Your task to perform on an android device: toggle wifi Image 0: 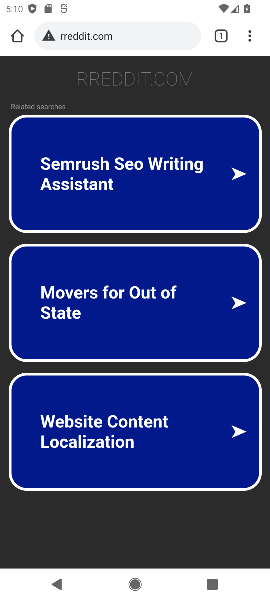
Step 0: press home button
Your task to perform on an android device: toggle wifi Image 1: 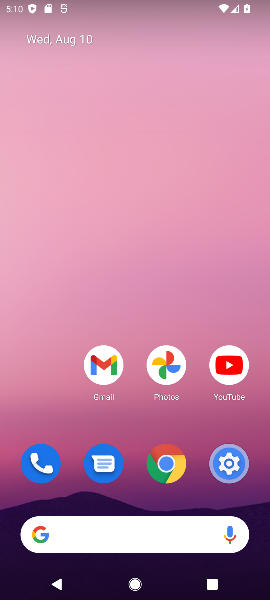
Step 1: click (230, 465)
Your task to perform on an android device: toggle wifi Image 2: 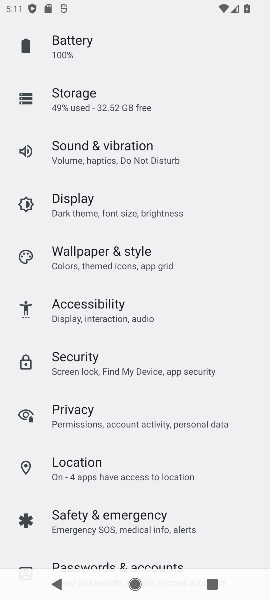
Step 2: drag from (149, 76) to (86, 380)
Your task to perform on an android device: toggle wifi Image 3: 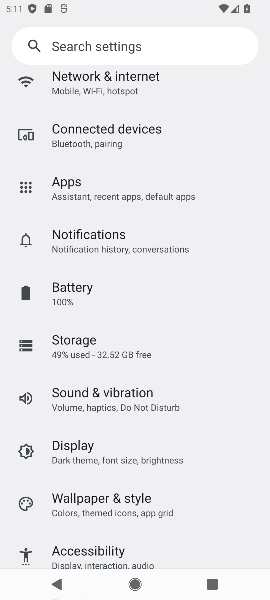
Step 3: click (115, 78)
Your task to perform on an android device: toggle wifi Image 4: 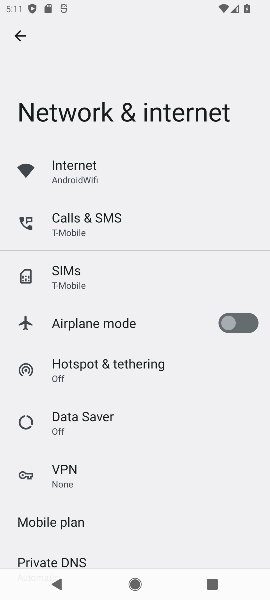
Step 4: click (74, 174)
Your task to perform on an android device: toggle wifi Image 5: 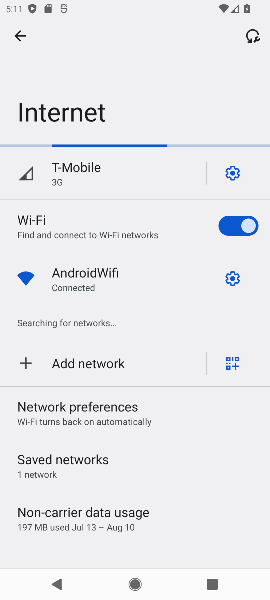
Step 5: click (240, 217)
Your task to perform on an android device: toggle wifi Image 6: 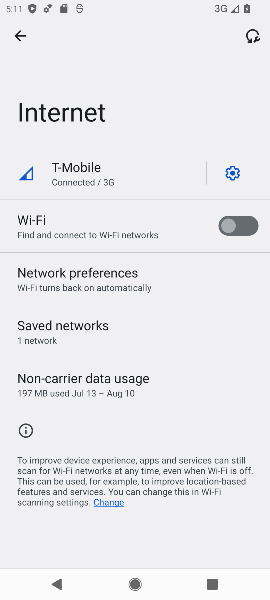
Step 6: task complete